Your task to perform on an android device: When is my next appointment? Image 0: 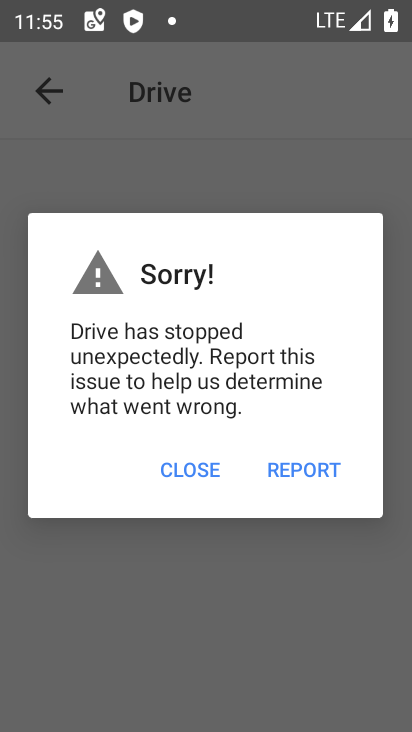
Step 0: press home button
Your task to perform on an android device: When is my next appointment? Image 1: 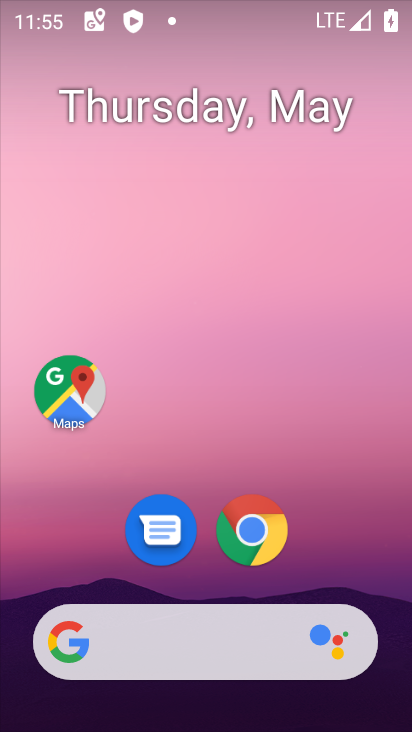
Step 1: drag from (284, 723) to (211, 23)
Your task to perform on an android device: When is my next appointment? Image 2: 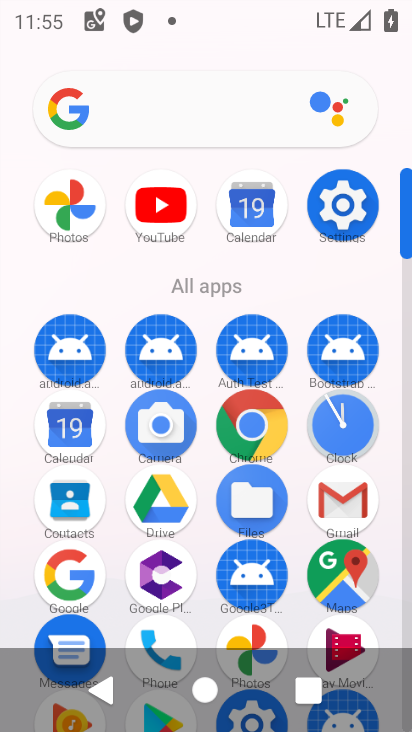
Step 2: click (68, 432)
Your task to perform on an android device: When is my next appointment? Image 3: 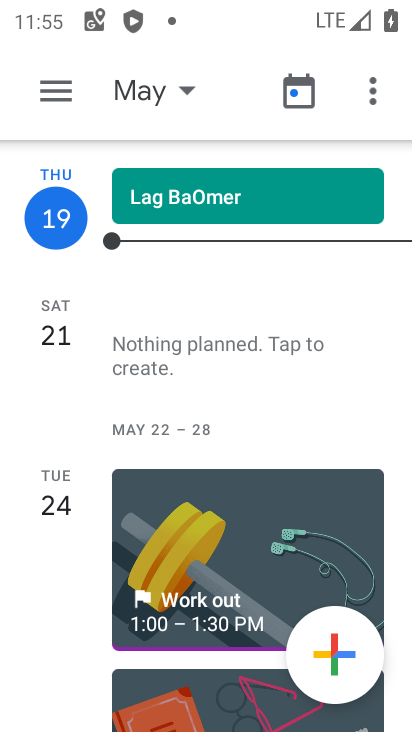
Step 3: click (57, 86)
Your task to perform on an android device: When is my next appointment? Image 4: 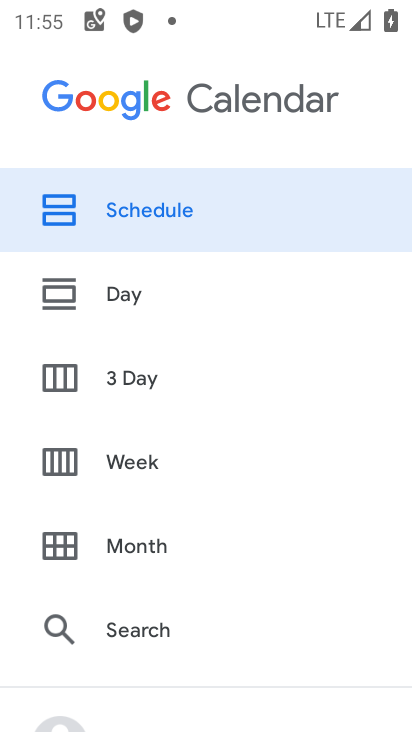
Step 4: click (122, 235)
Your task to perform on an android device: When is my next appointment? Image 5: 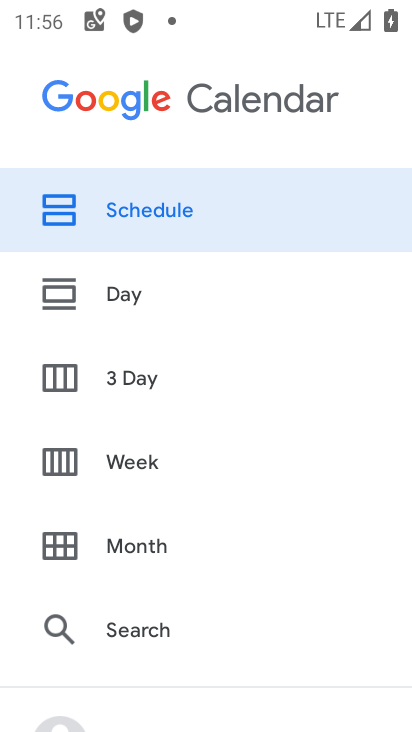
Step 5: task complete